Your task to perform on an android device: See recent photos Image 0: 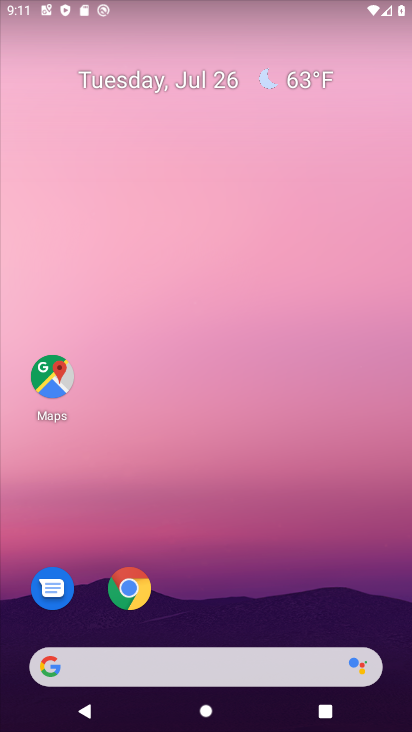
Step 0: drag from (237, 644) to (239, 68)
Your task to perform on an android device: See recent photos Image 1: 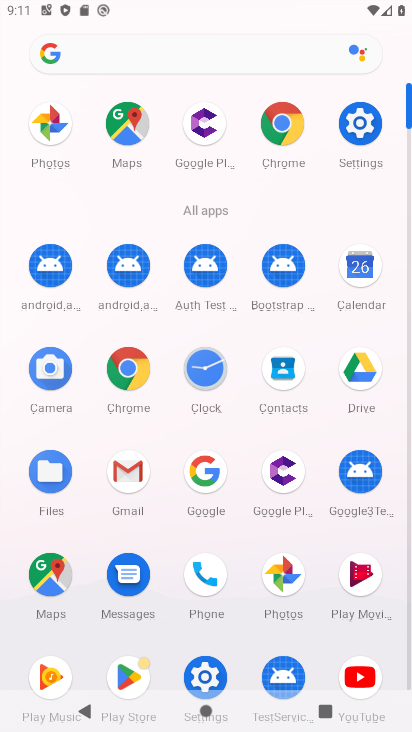
Step 1: click (55, 134)
Your task to perform on an android device: See recent photos Image 2: 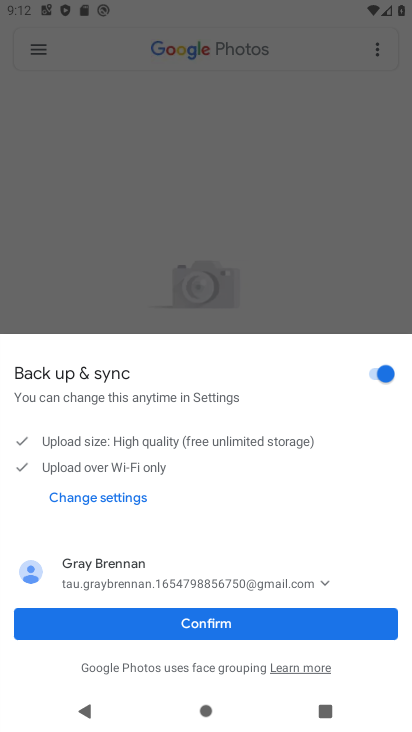
Step 2: click (183, 638)
Your task to perform on an android device: See recent photos Image 3: 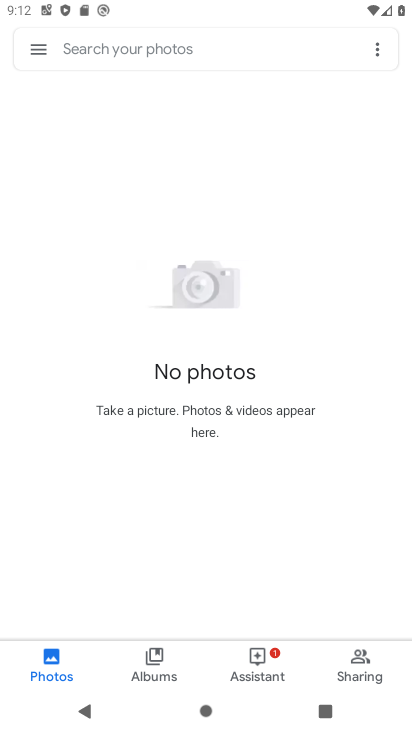
Step 3: task complete